Your task to perform on an android device: Go to ESPN.com Image 0: 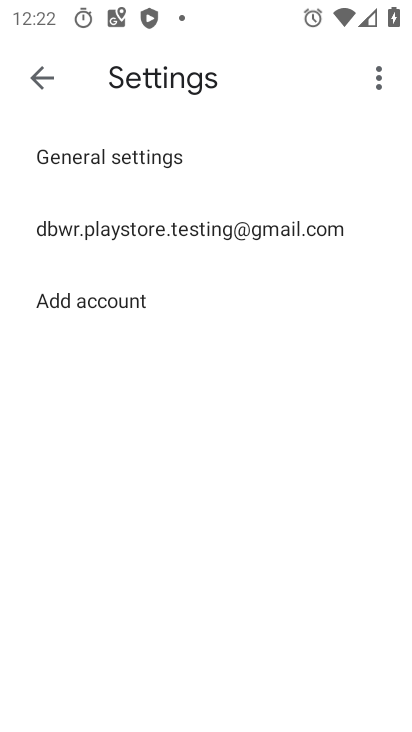
Step 0: press home button
Your task to perform on an android device: Go to ESPN.com Image 1: 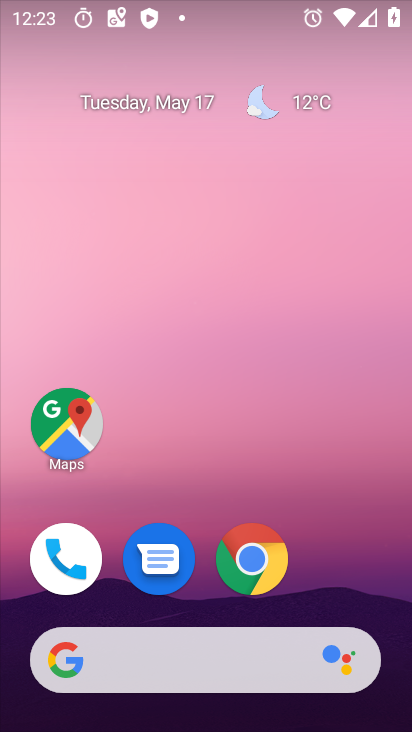
Step 1: click (257, 564)
Your task to perform on an android device: Go to ESPN.com Image 2: 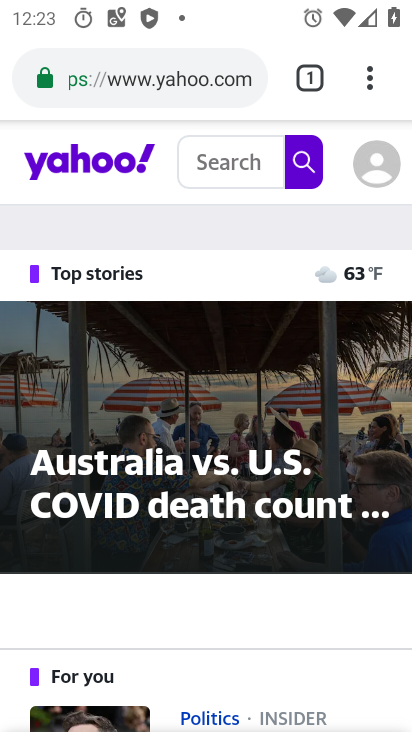
Step 2: click (179, 87)
Your task to perform on an android device: Go to ESPN.com Image 3: 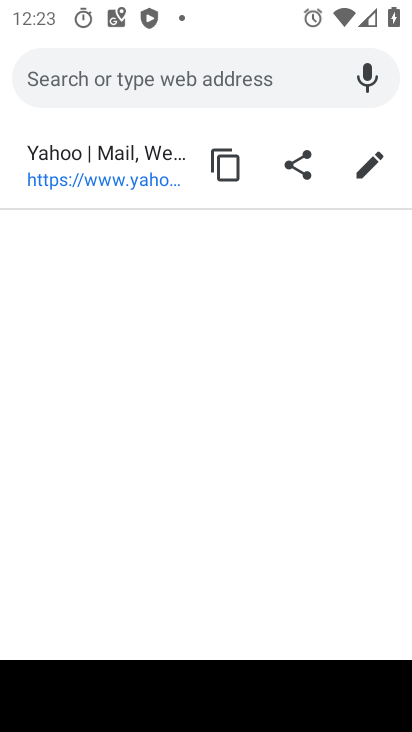
Step 3: type "espn.com"
Your task to perform on an android device: Go to ESPN.com Image 4: 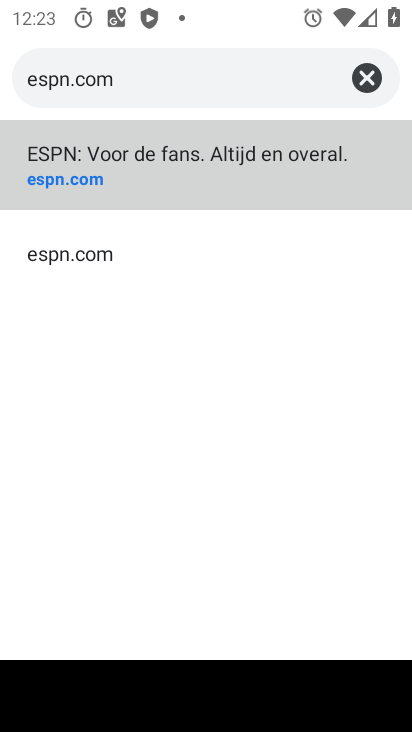
Step 4: click (88, 178)
Your task to perform on an android device: Go to ESPN.com Image 5: 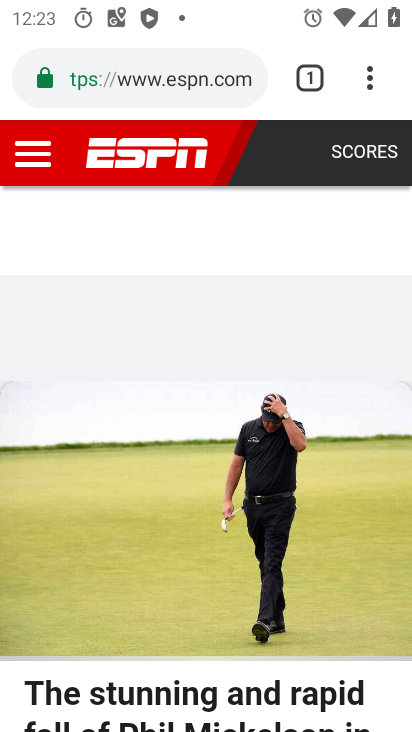
Step 5: task complete